Your task to perform on an android device: Show me popular games on the Play Store Image 0: 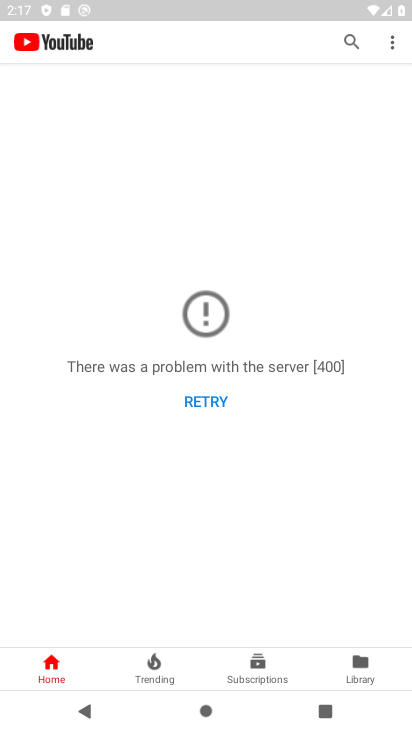
Step 0: press home button
Your task to perform on an android device: Show me popular games on the Play Store Image 1: 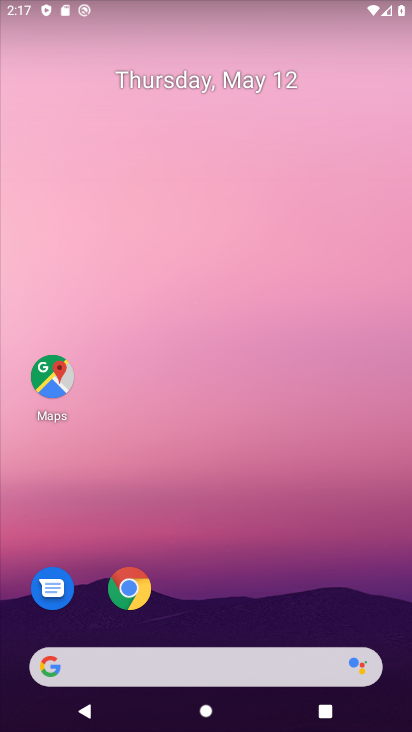
Step 1: drag from (267, 553) to (219, 186)
Your task to perform on an android device: Show me popular games on the Play Store Image 2: 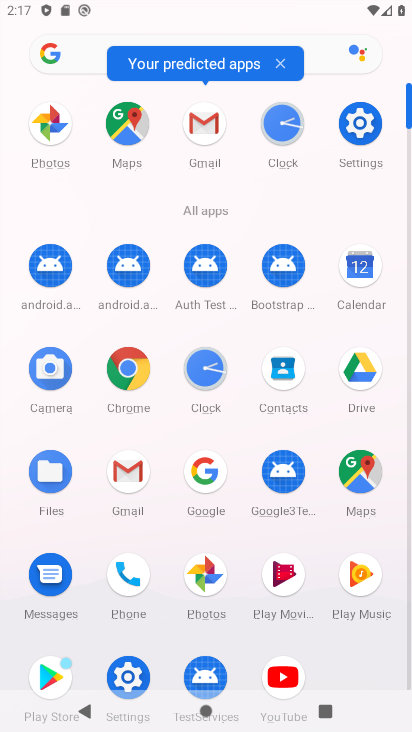
Step 2: drag from (393, 592) to (391, 249)
Your task to perform on an android device: Show me popular games on the Play Store Image 3: 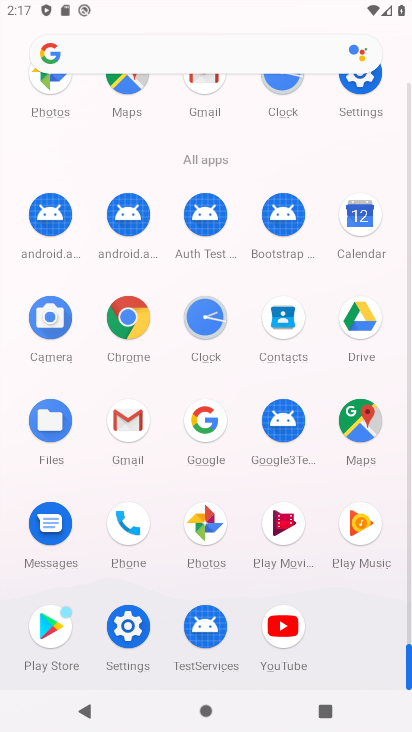
Step 3: click (63, 622)
Your task to perform on an android device: Show me popular games on the Play Store Image 4: 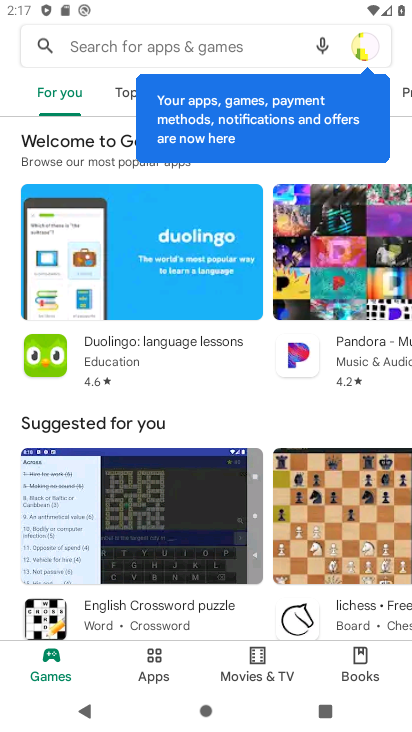
Step 4: click (178, 38)
Your task to perform on an android device: Show me popular games on the Play Store Image 5: 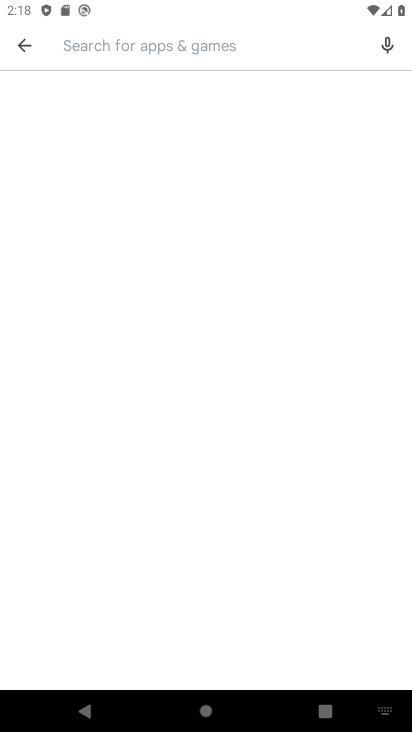
Step 5: type "popular gamas"
Your task to perform on an android device: Show me popular games on the Play Store Image 6: 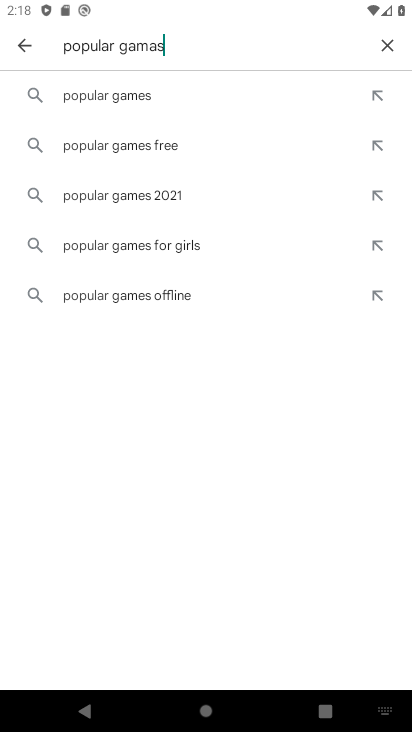
Step 6: click (102, 91)
Your task to perform on an android device: Show me popular games on the Play Store Image 7: 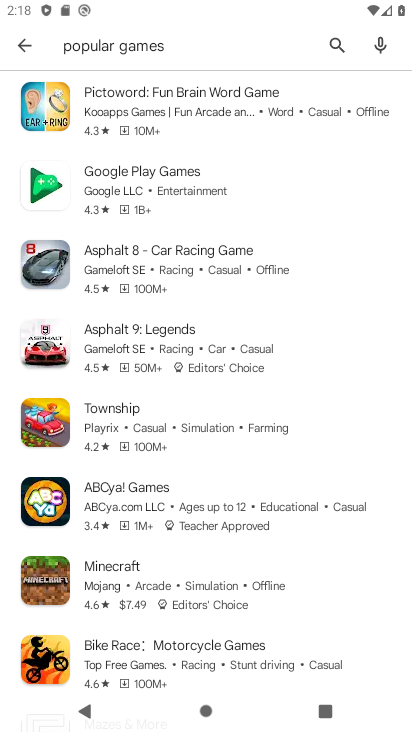
Step 7: task complete